Your task to perform on an android device: turn pop-ups off in chrome Image 0: 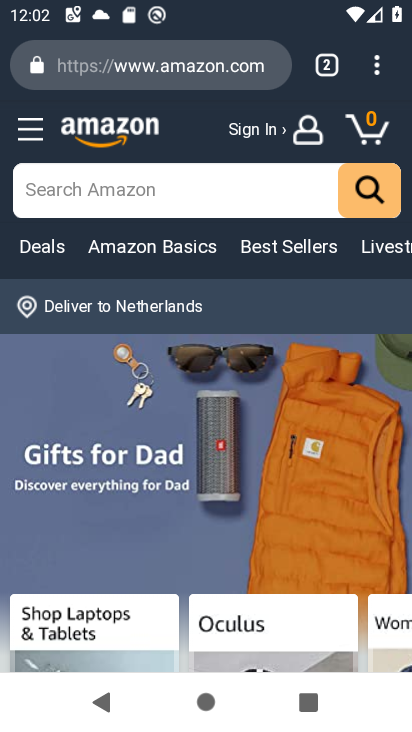
Step 0: press home button
Your task to perform on an android device: turn pop-ups off in chrome Image 1: 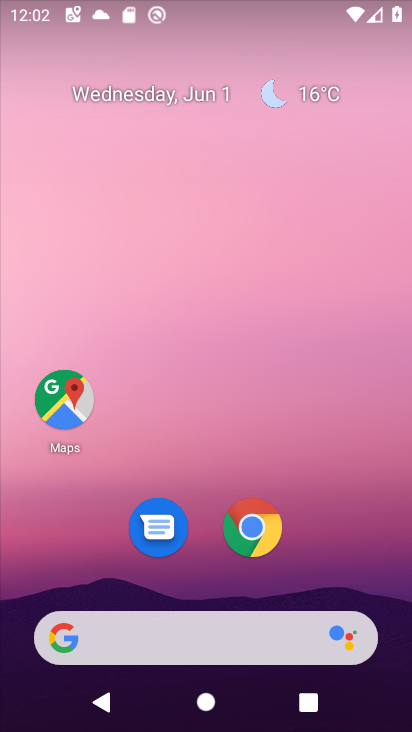
Step 1: click (245, 535)
Your task to perform on an android device: turn pop-ups off in chrome Image 2: 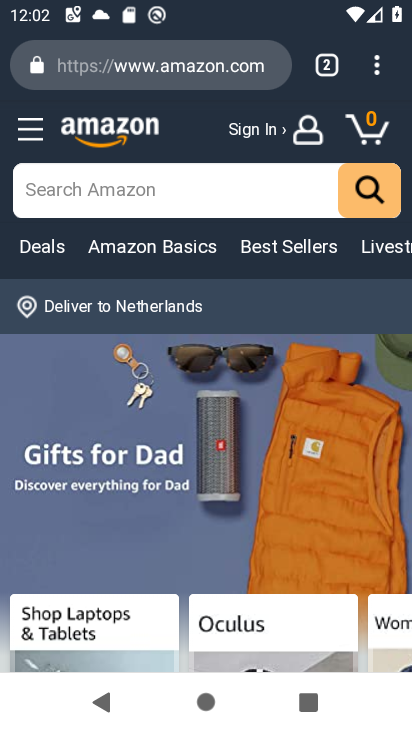
Step 2: click (376, 72)
Your task to perform on an android device: turn pop-ups off in chrome Image 3: 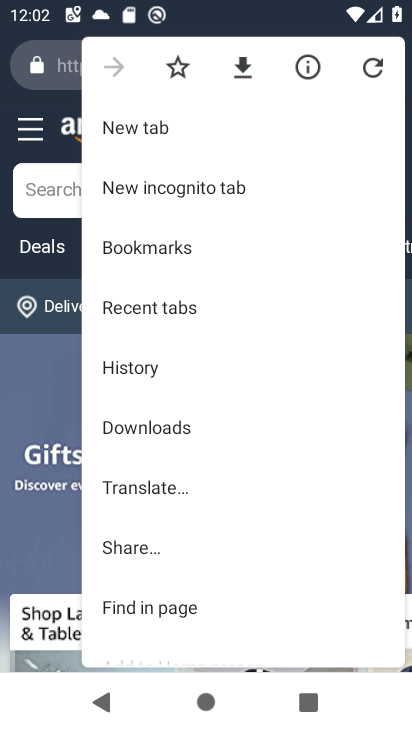
Step 3: drag from (268, 501) to (236, 182)
Your task to perform on an android device: turn pop-ups off in chrome Image 4: 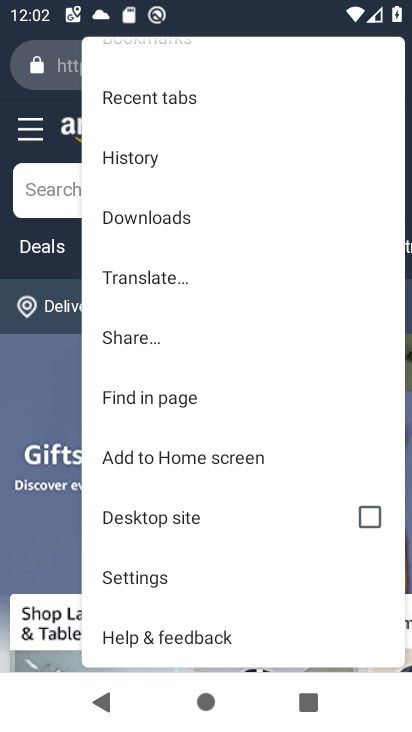
Step 4: click (132, 567)
Your task to perform on an android device: turn pop-ups off in chrome Image 5: 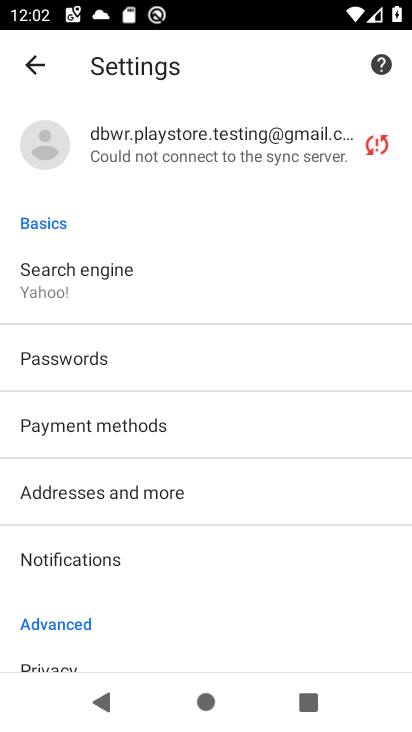
Step 5: drag from (219, 613) to (205, 306)
Your task to perform on an android device: turn pop-ups off in chrome Image 6: 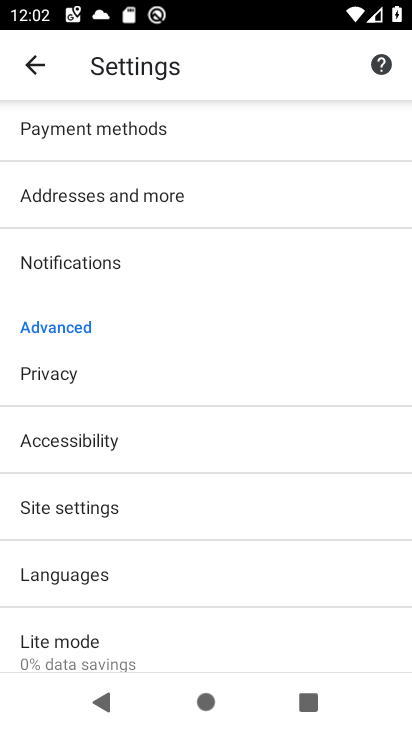
Step 6: drag from (183, 596) to (162, 493)
Your task to perform on an android device: turn pop-ups off in chrome Image 7: 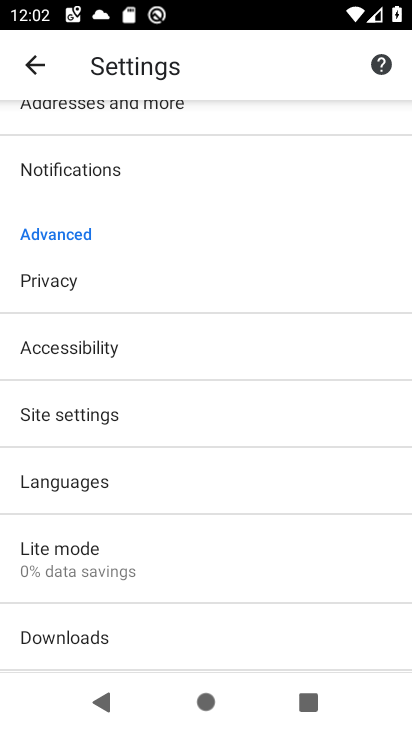
Step 7: click (79, 419)
Your task to perform on an android device: turn pop-ups off in chrome Image 8: 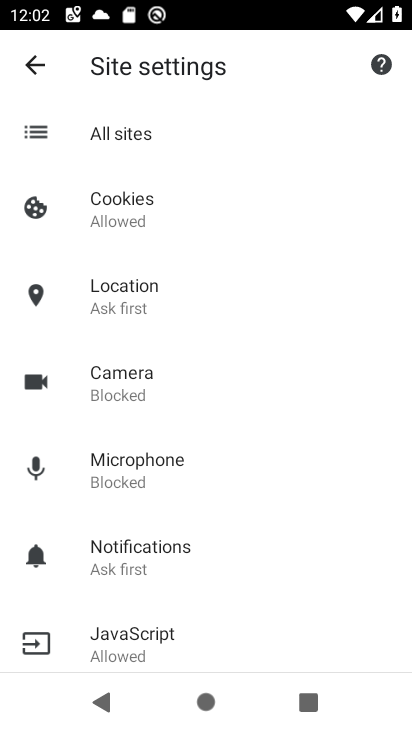
Step 8: drag from (276, 573) to (274, 246)
Your task to perform on an android device: turn pop-ups off in chrome Image 9: 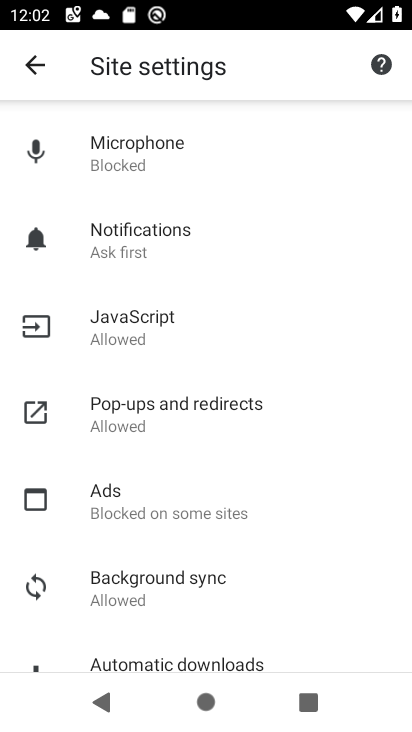
Step 9: click (104, 403)
Your task to perform on an android device: turn pop-ups off in chrome Image 10: 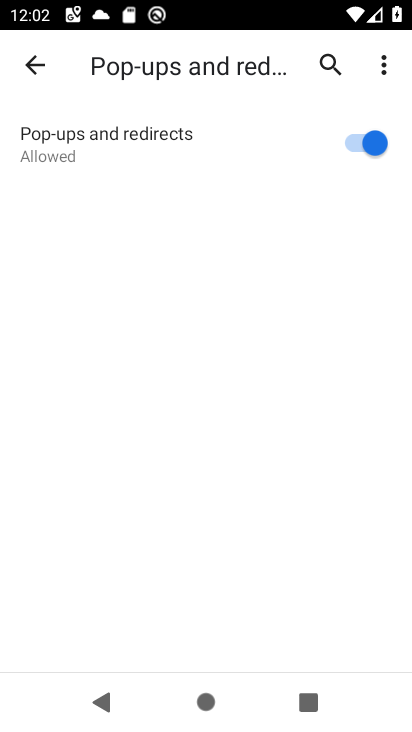
Step 10: click (356, 141)
Your task to perform on an android device: turn pop-ups off in chrome Image 11: 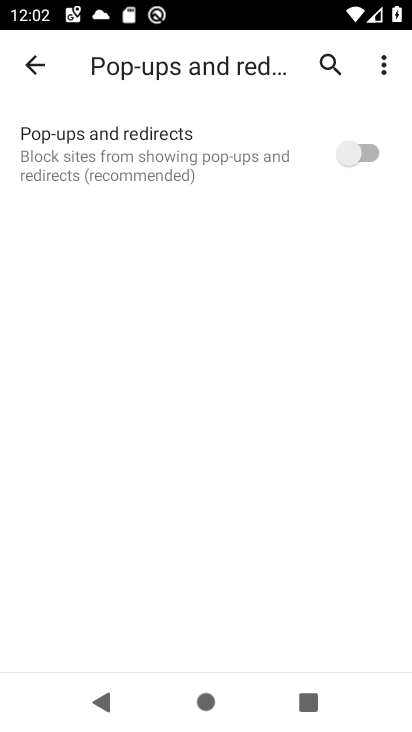
Step 11: task complete